Your task to perform on an android device: toggle notifications settings in the gmail app Image 0: 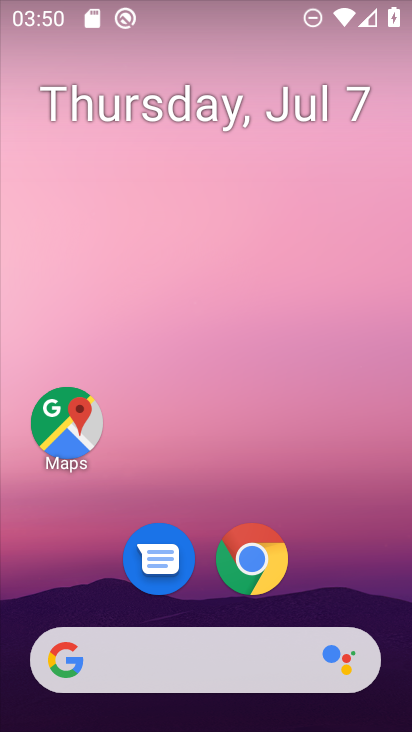
Step 0: drag from (387, 597) to (375, 112)
Your task to perform on an android device: toggle notifications settings in the gmail app Image 1: 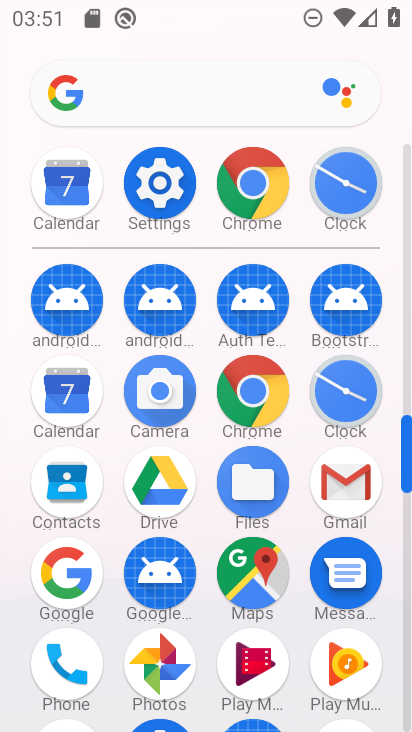
Step 1: click (358, 476)
Your task to perform on an android device: toggle notifications settings in the gmail app Image 2: 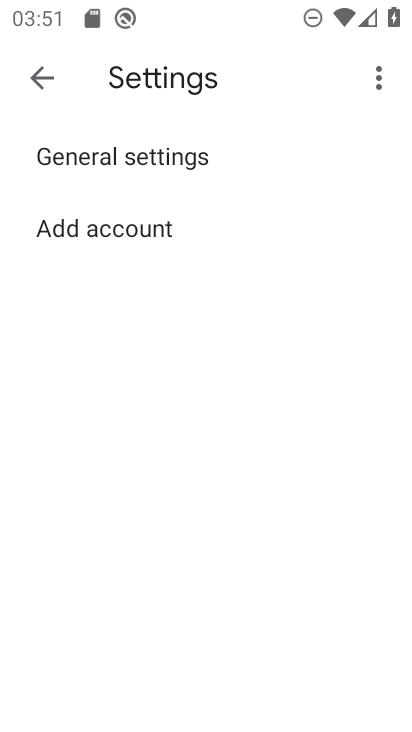
Step 2: click (49, 82)
Your task to perform on an android device: toggle notifications settings in the gmail app Image 3: 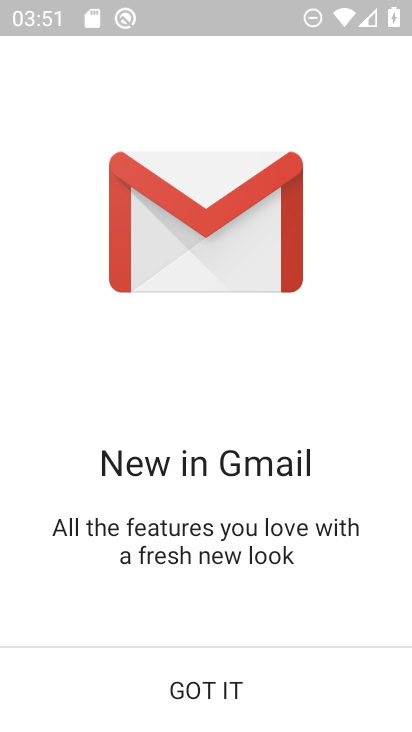
Step 3: click (230, 688)
Your task to perform on an android device: toggle notifications settings in the gmail app Image 4: 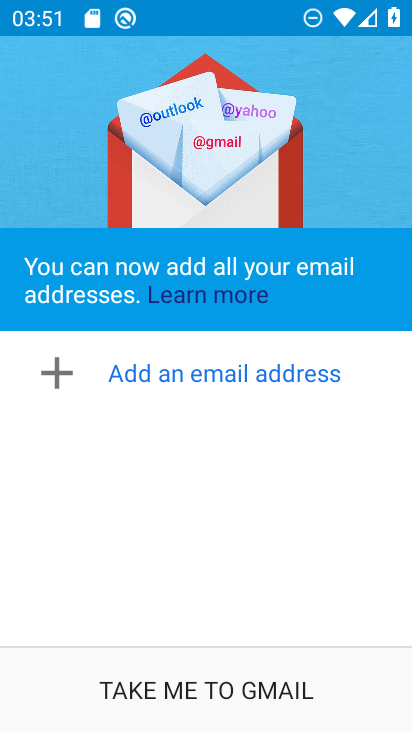
Step 4: click (254, 697)
Your task to perform on an android device: toggle notifications settings in the gmail app Image 5: 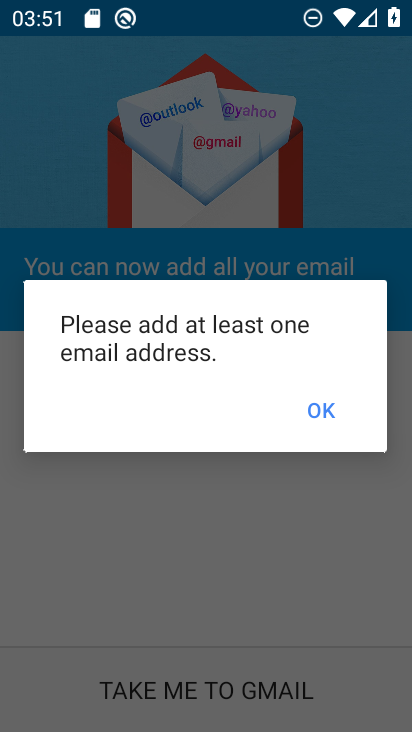
Step 5: task complete